Your task to perform on an android device: Open calendar and show me the third week of next month Image 0: 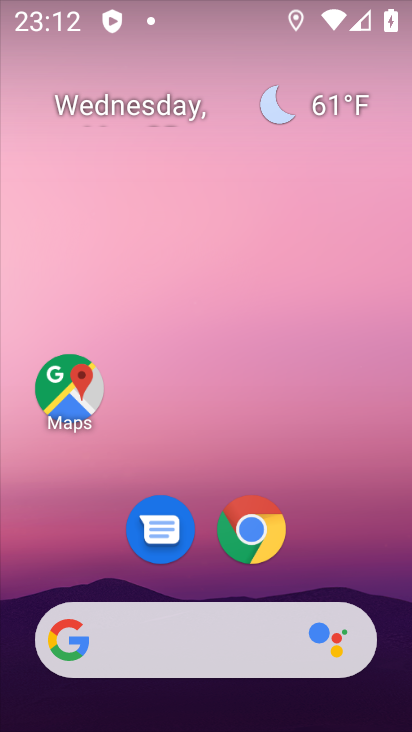
Step 0: drag from (374, 571) to (370, 339)
Your task to perform on an android device: Open calendar and show me the third week of next month Image 1: 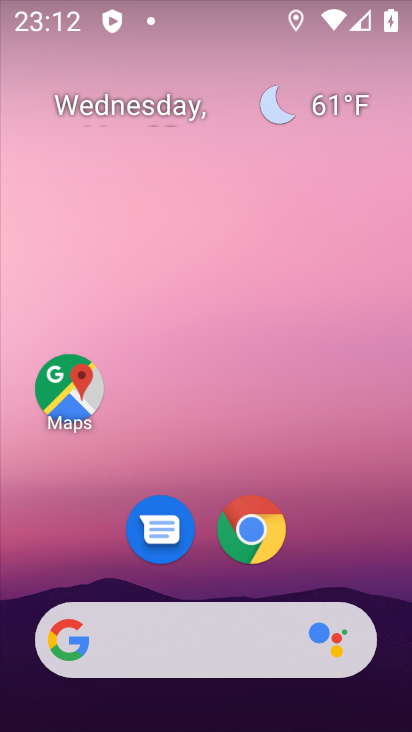
Step 1: drag from (353, 534) to (368, 146)
Your task to perform on an android device: Open calendar and show me the third week of next month Image 2: 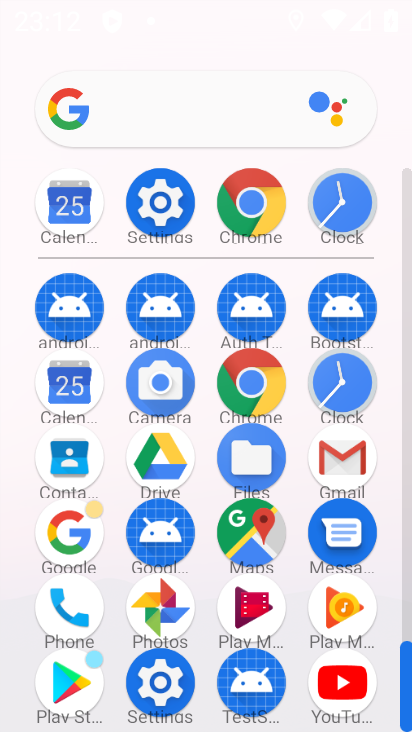
Step 2: click (77, 391)
Your task to perform on an android device: Open calendar and show me the third week of next month Image 3: 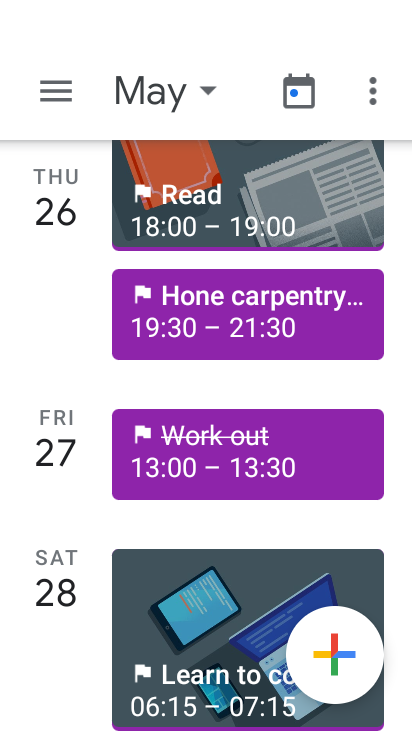
Step 3: click (207, 89)
Your task to perform on an android device: Open calendar and show me the third week of next month Image 4: 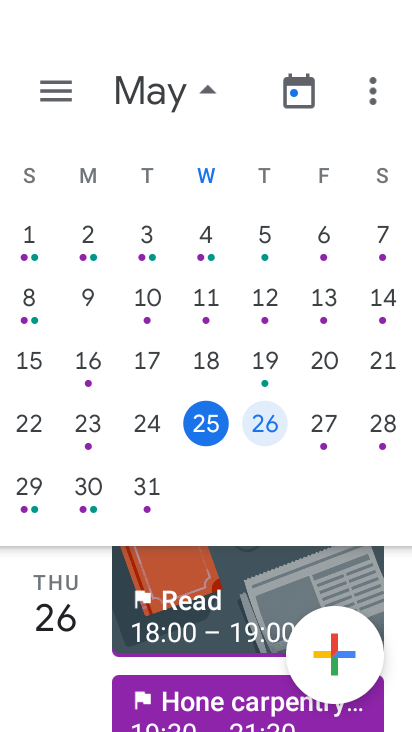
Step 4: drag from (392, 202) to (0, 206)
Your task to perform on an android device: Open calendar and show me the third week of next month Image 5: 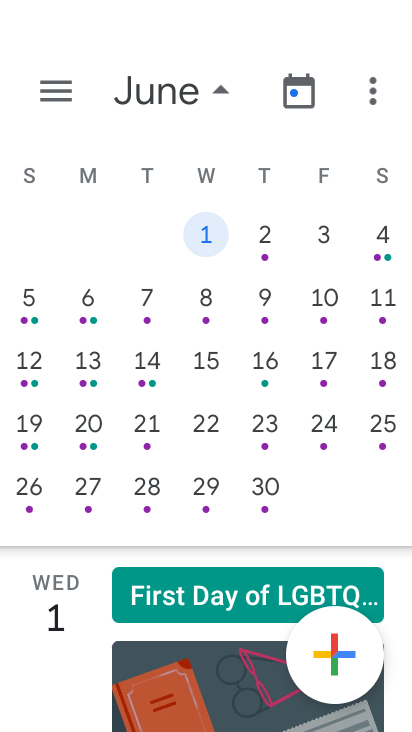
Step 5: click (137, 361)
Your task to perform on an android device: Open calendar and show me the third week of next month Image 6: 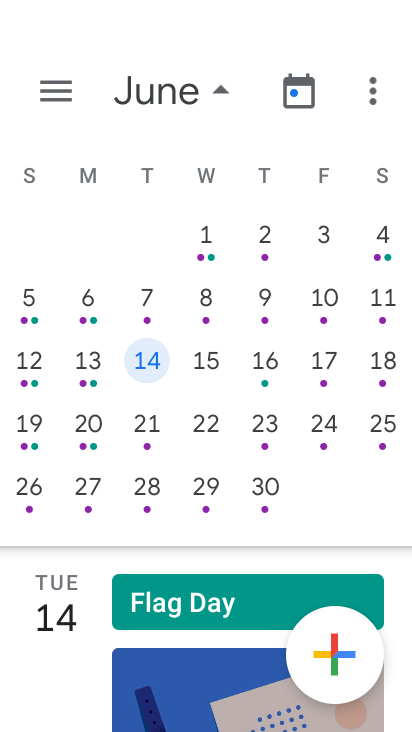
Step 6: task complete